Your task to perform on an android device: Open Chrome and go to settings Image 0: 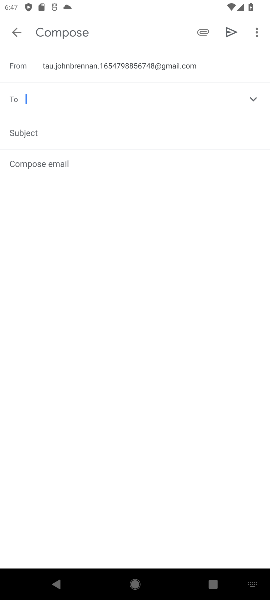
Step 0: press home button
Your task to perform on an android device: Open Chrome and go to settings Image 1: 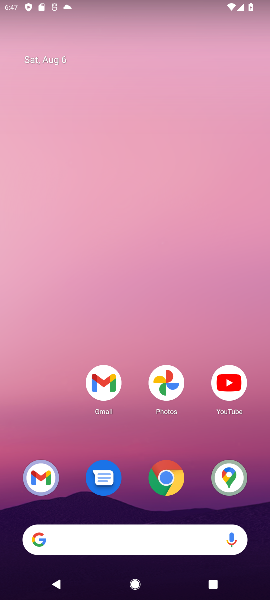
Step 1: drag from (51, 412) to (49, 70)
Your task to perform on an android device: Open Chrome and go to settings Image 2: 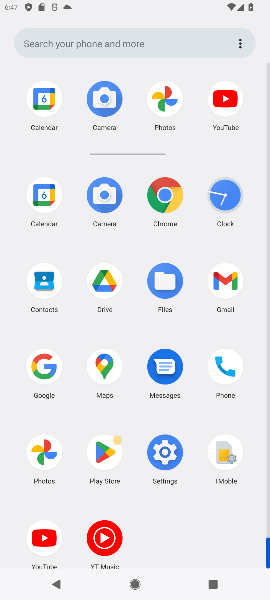
Step 2: click (165, 188)
Your task to perform on an android device: Open Chrome and go to settings Image 3: 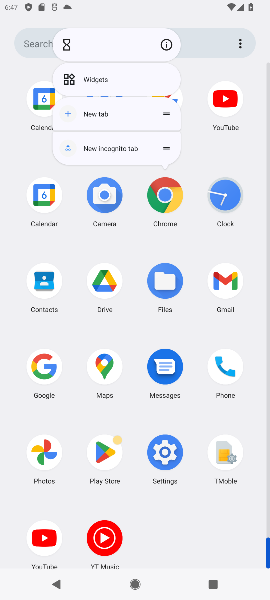
Step 3: click (165, 188)
Your task to perform on an android device: Open Chrome and go to settings Image 4: 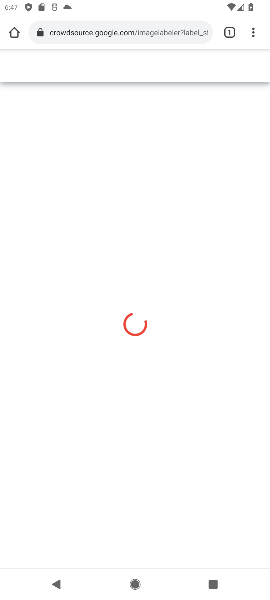
Step 4: task complete